Your task to perform on an android device: Go to internet settings Image 0: 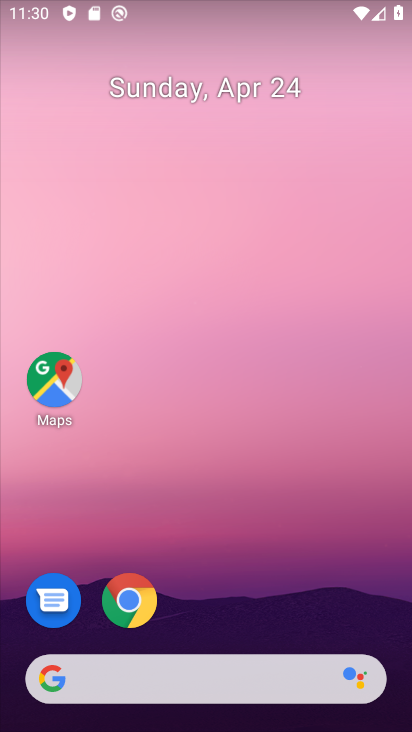
Step 0: drag from (229, 648) to (154, 209)
Your task to perform on an android device: Go to internet settings Image 1: 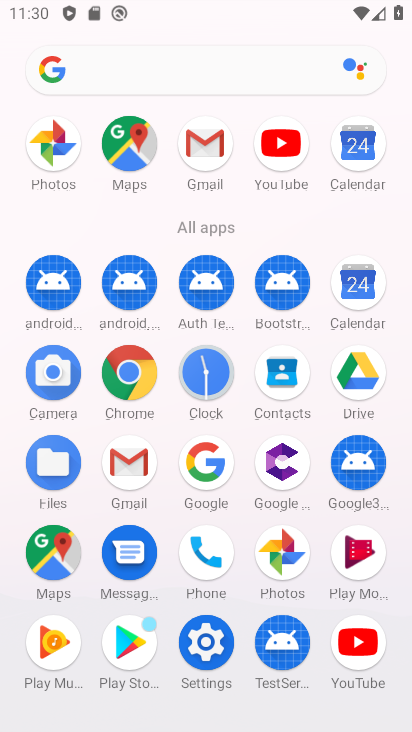
Step 1: click (214, 661)
Your task to perform on an android device: Go to internet settings Image 2: 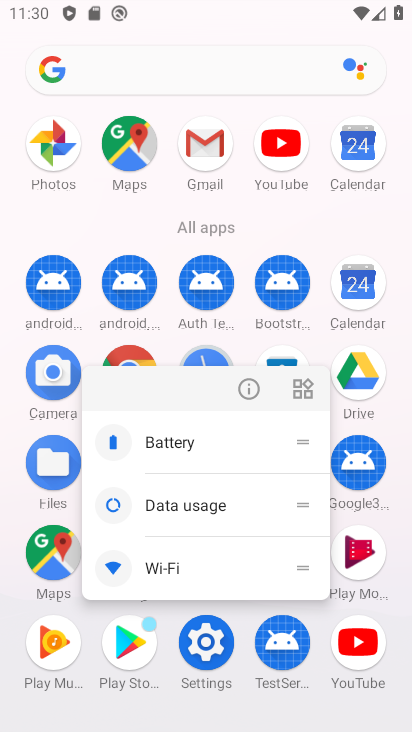
Step 2: click (207, 661)
Your task to perform on an android device: Go to internet settings Image 3: 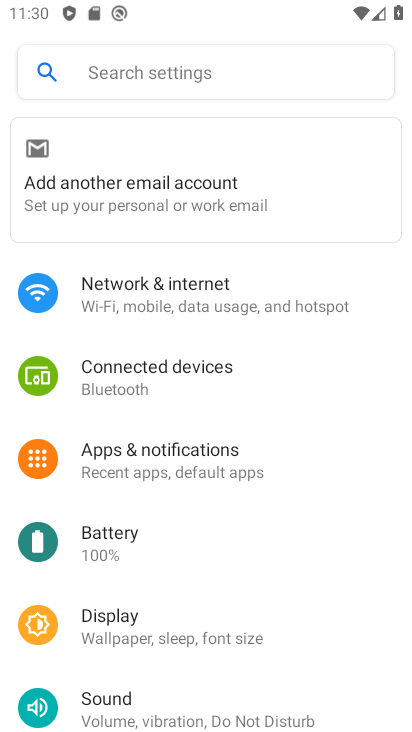
Step 3: click (154, 281)
Your task to perform on an android device: Go to internet settings Image 4: 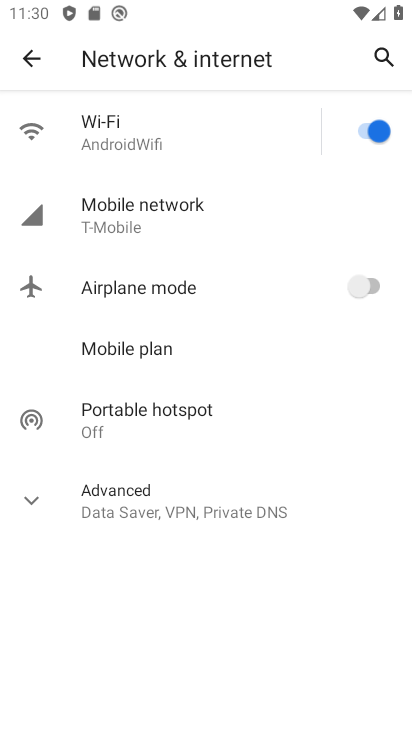
Step 4: task complete